Your task to perform on an android device: What's the weather going to be this weekend? Image 0: 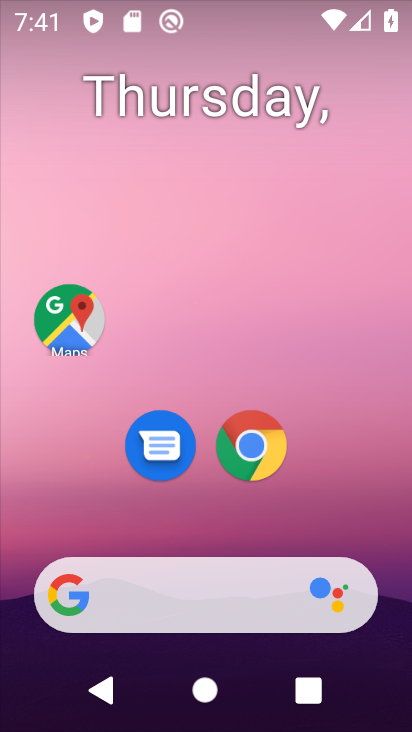
Step 0: drag from (233, 294) to (283, 68)
Your task to perform on an android device: What's the weather going to be this weekend? Image 1: 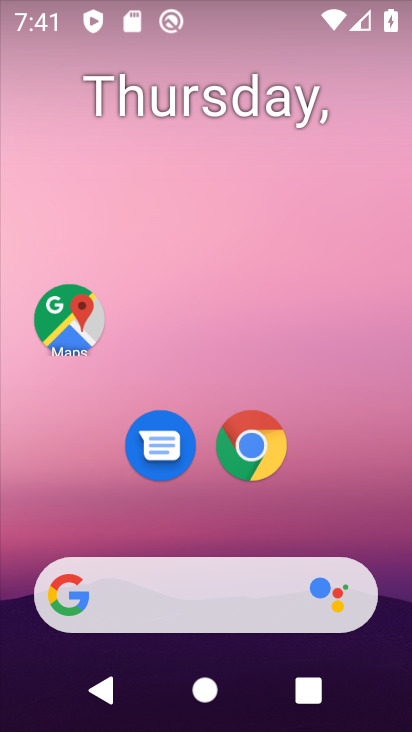
Step 1: drag from (207, 534) to (236, 96)
Your task to perform on an android device: What's the weather going to be this weekend? Image 2: 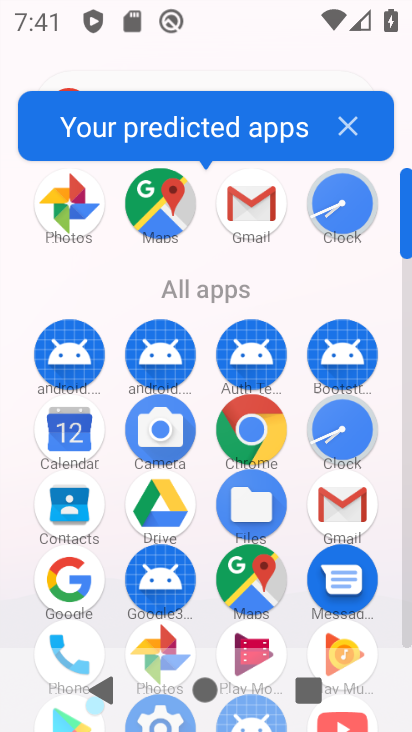
Step 2: click (183, 112)
Your task to perform on an android device: What's the weather going to be this weekend? Image 3: 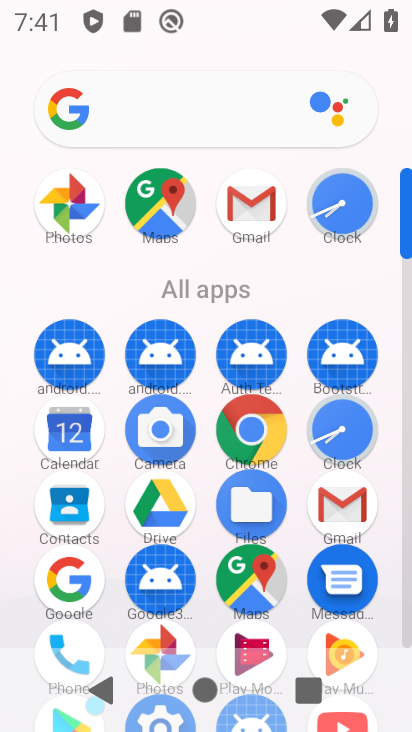
Step 3: click (183, 112)
Your task to perform on an android device: What's the weather going to be this weekend? Image 4: 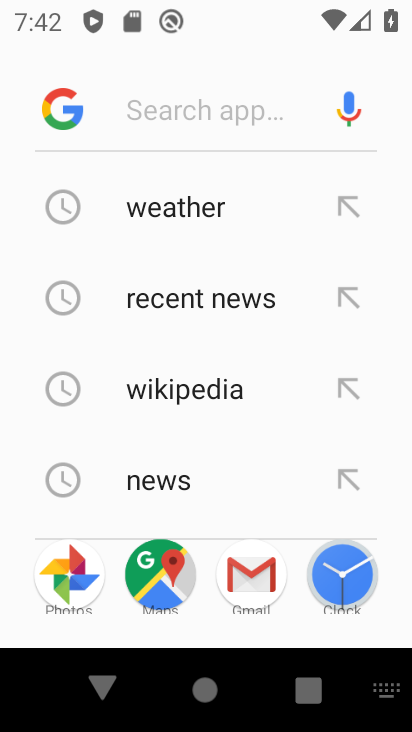
Step 4: type "weather going to be this weekend"
Your task to perform on an android device: What's the weather going to be this weekend? Image 5: 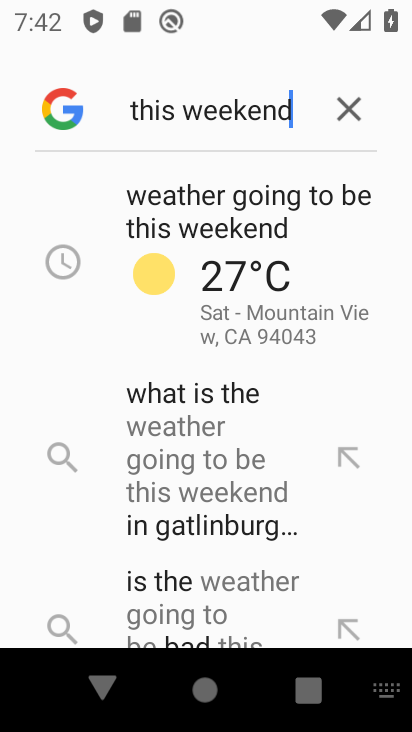
Step 5: click (165, 235)
Your task to perform on an android device: What's the weather going to be this weekend? Image 6: 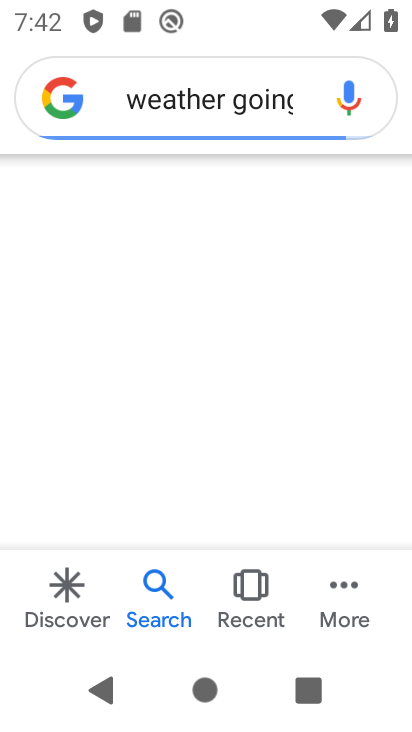
Step 6: task complete